Your task to perform on an android device: toggle show notifications on the lock screen Image 0: 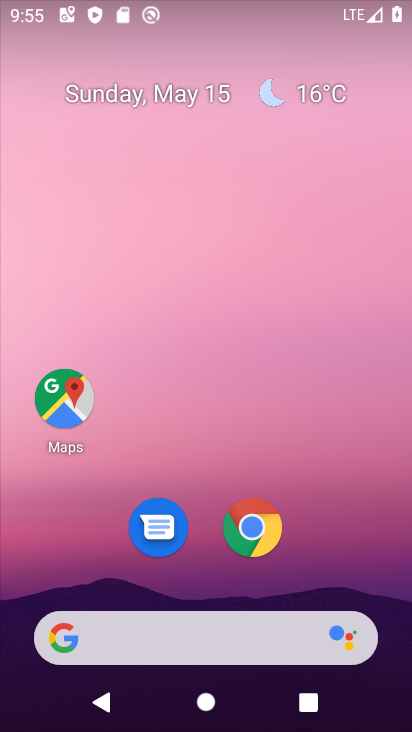
Step 0: drag from (367, 598) to (378, 16)
Your task to perform on an android device: toggle show notifications on the lock screen Image 1: 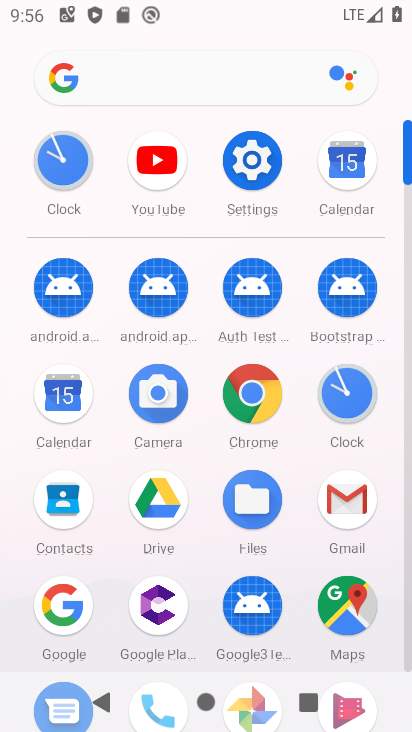
Step 1: click (246, 167)
Your task to perform on an android device: toggle show notifications on the lock screen Image 2: 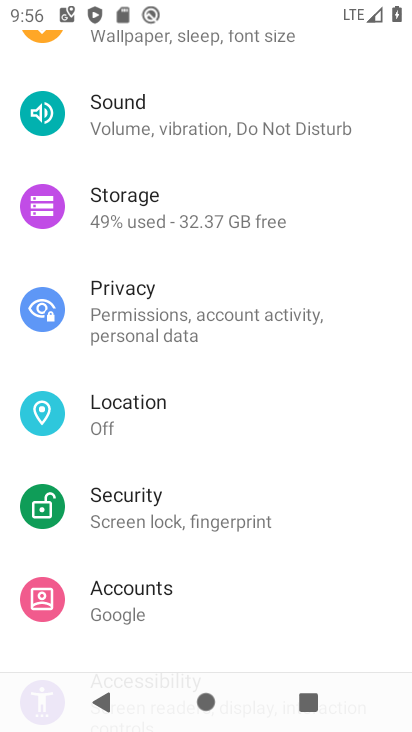
Step 2: drag from (393, 237) to (352, 572)
Your task to perform on an android device: toggle show notifications on the lock screen Image 3: 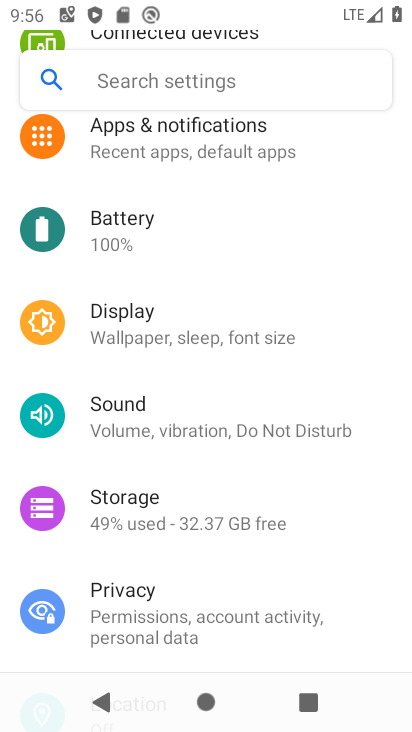
Step 3: click (165, 155)
Your task to perform on an android device: toggle show notifications on the lock screen Image 4: 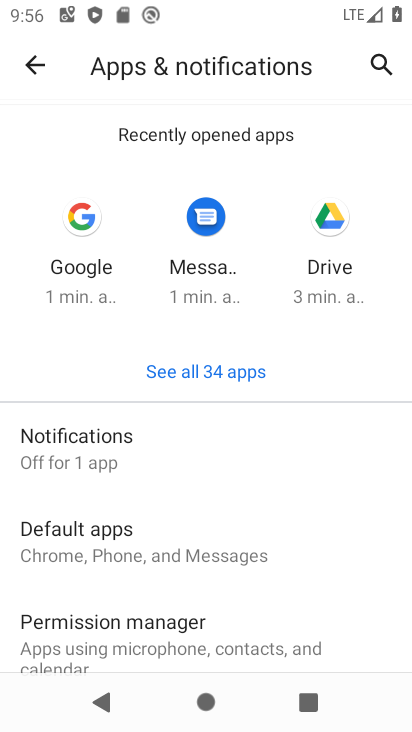
Step 4: click (75, 451)
Your task to perform on an android device: toggle show notifications on the lock screen Image 5: 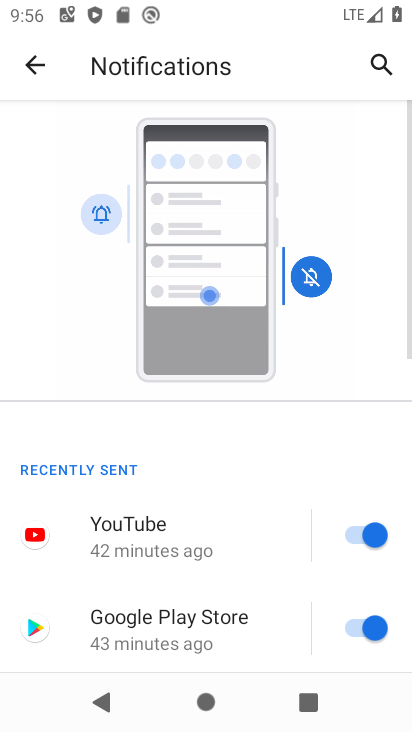
Step 5: drag from (217, 615) to (231, 84)
Your task to perform on an android device: toggle show notifications on the lock screen Image 6: 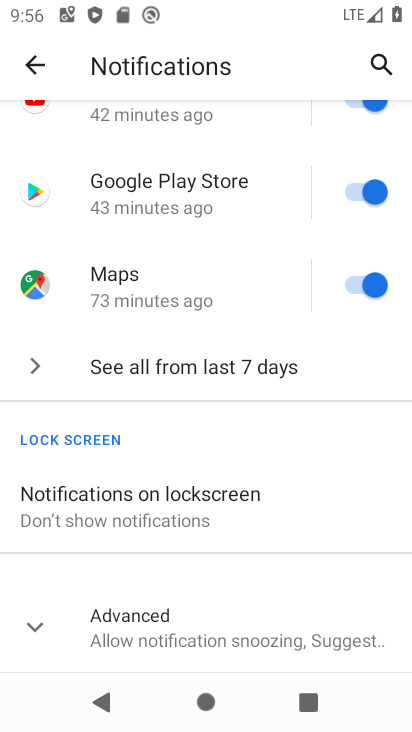
Step 6: click (120, 510)
Your task to perform on an android device: toggle show notifications on the lock screen Image 7: 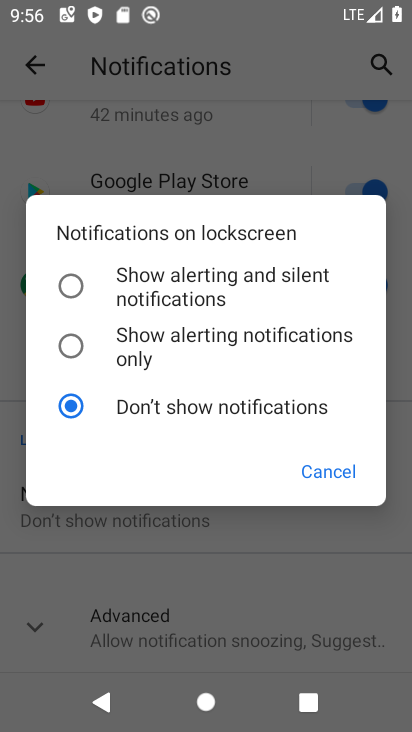
Step 7: click (79, 291)
Your task to perform on an android device: toggle show notifications on the lock screen Image 8: 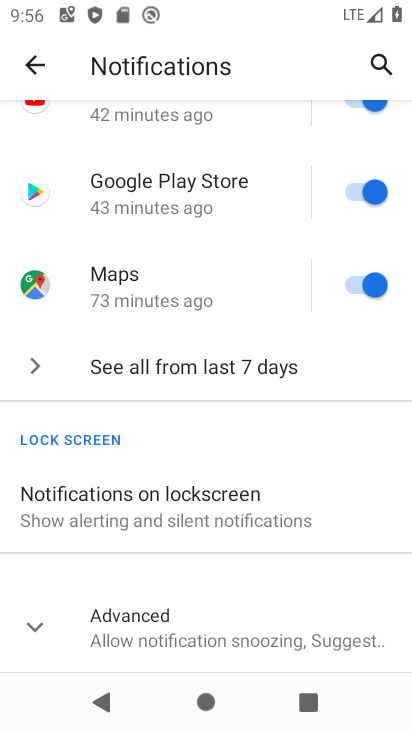
Step 8: task complete